Your task to perform on an android device: Clear all items from cart on newegg.com. Add "razer thresher" to the cart on newegg.com Image 0: 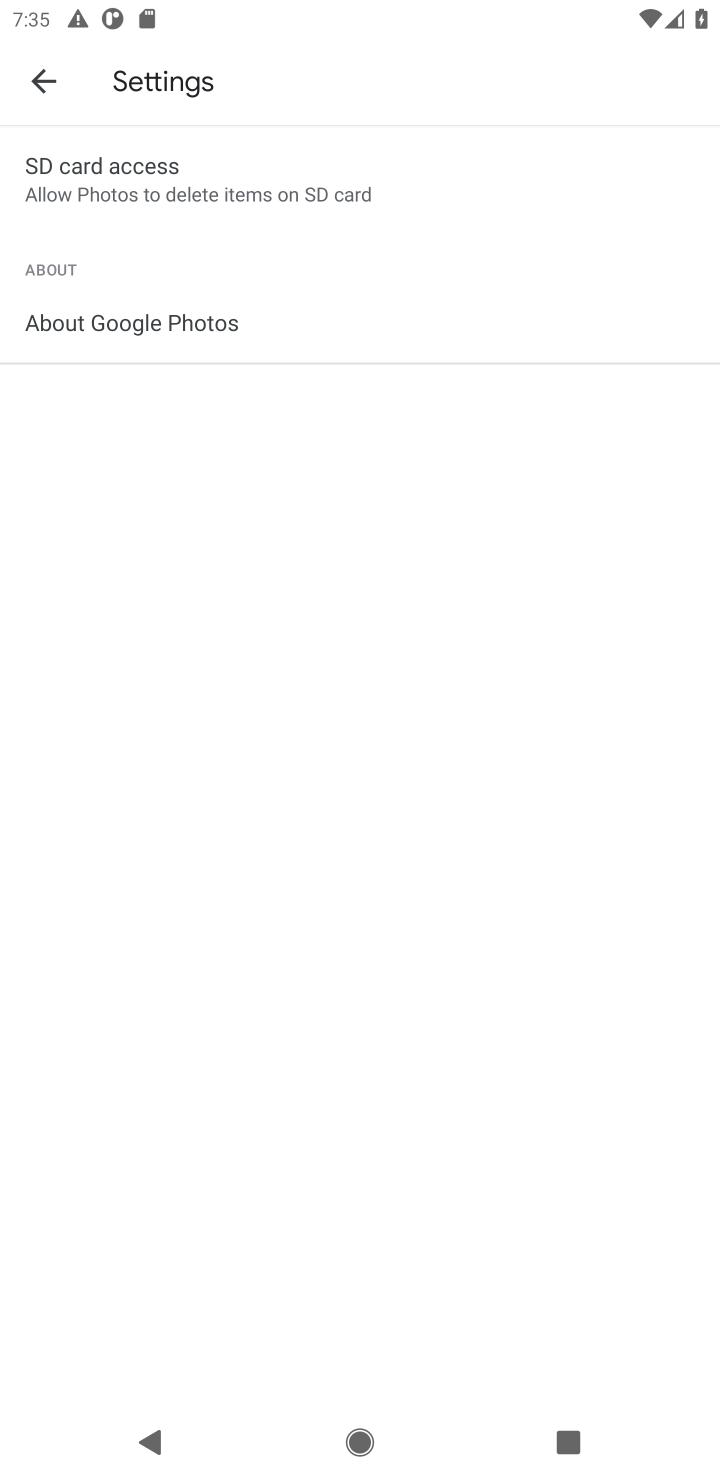
Step 0: press home button
Your task to perform on an android device: Clear all items from cart on newegg.com. Add "razer thresher" to the cart on newegg.com Image 1: 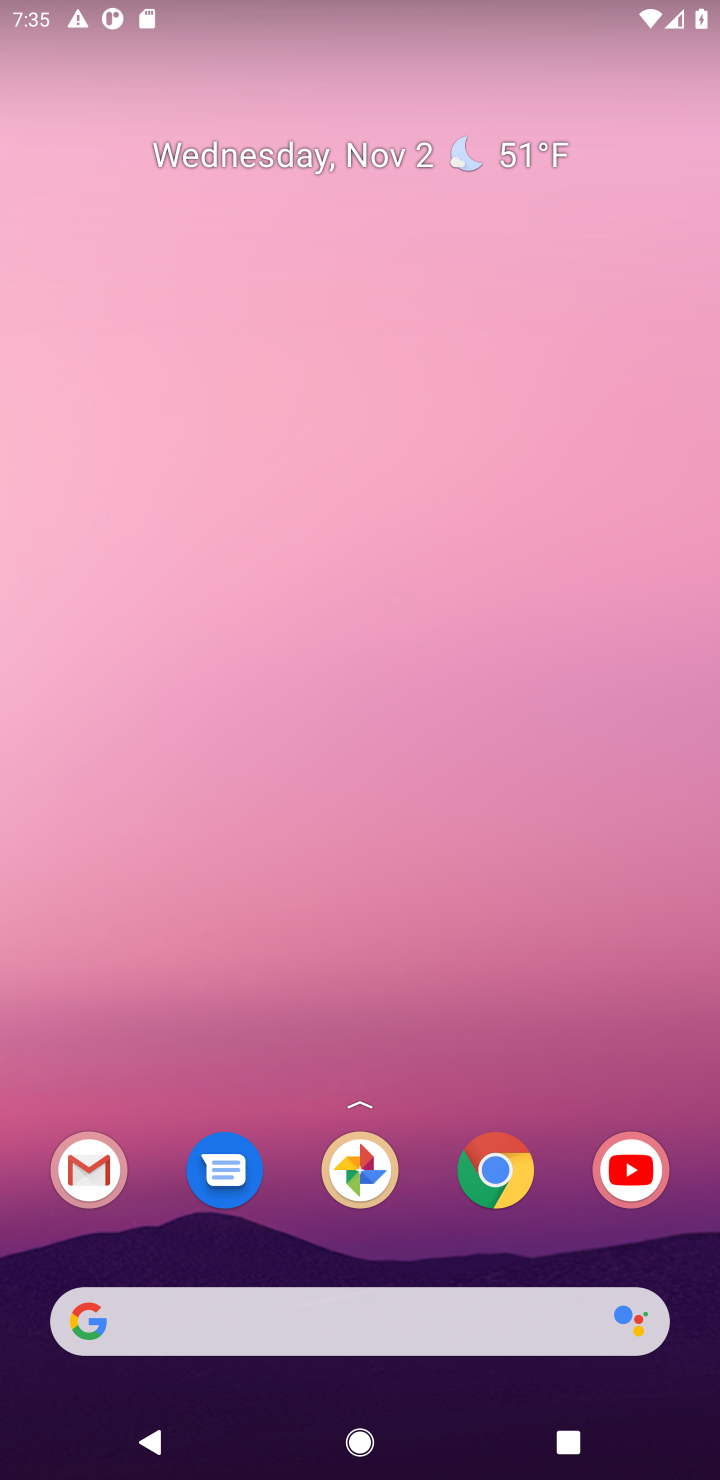
Step 1: click (500, 1208)
Your task to perform on an android device: Clear all items from cart on newegg.com. Add "razer thresher" to the cart on newegg.com Image 2: 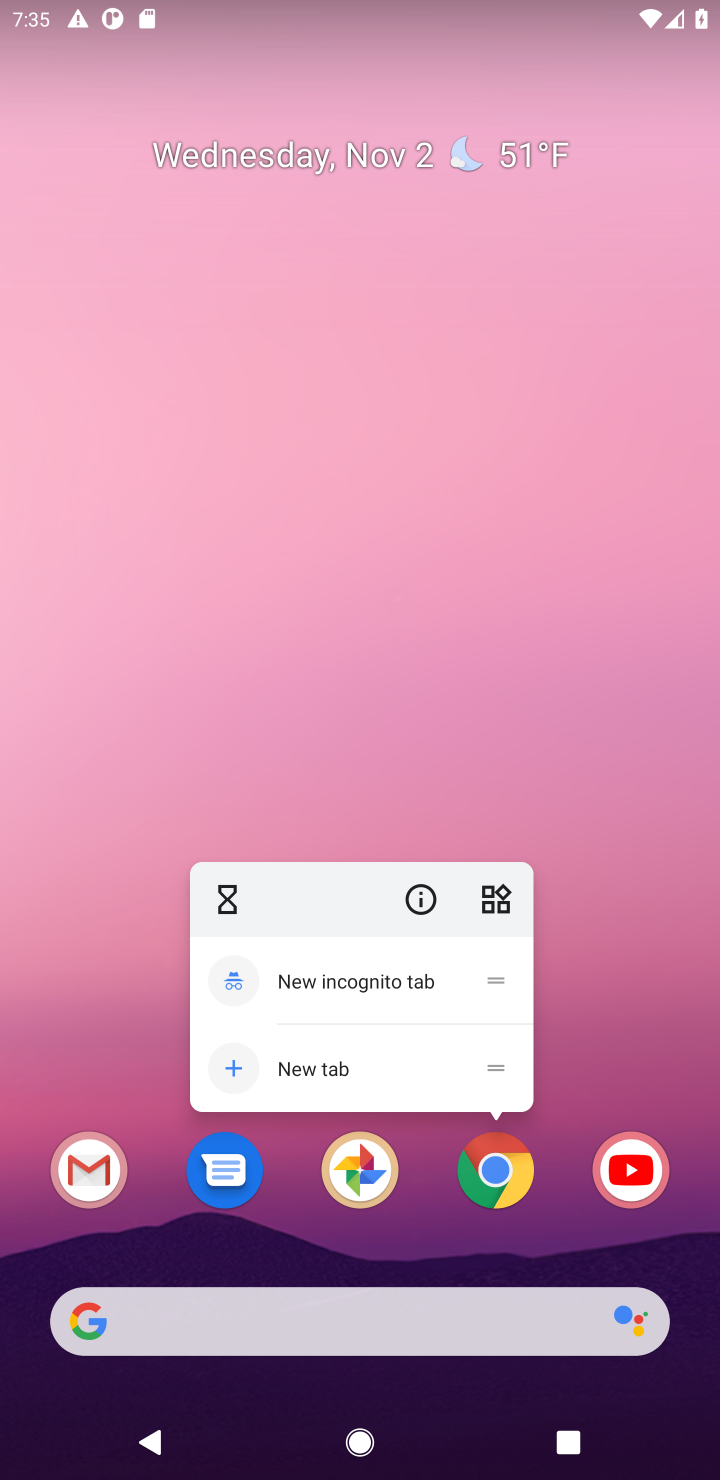
Step 2: click (503, 1181)
Your task to perform on an android device: Clear all items from cart on newegg.com. Add "razer thresher" to the cart on newegg.com Image 3: 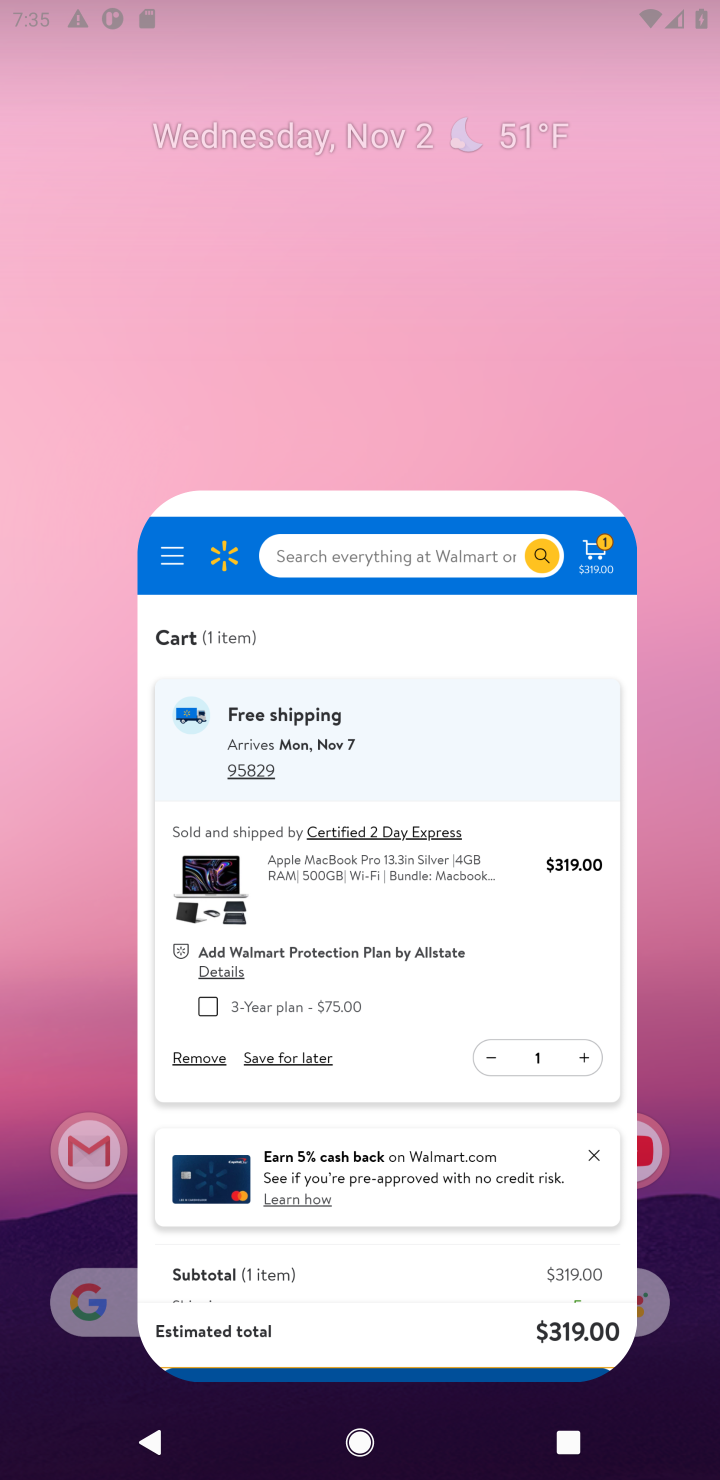
Step 3: click (493, 1175)
Your task to perform on an android device: Clear all items from cart on newegg.com. Add "razer thresher" to the cart on newegg.com Image 4: 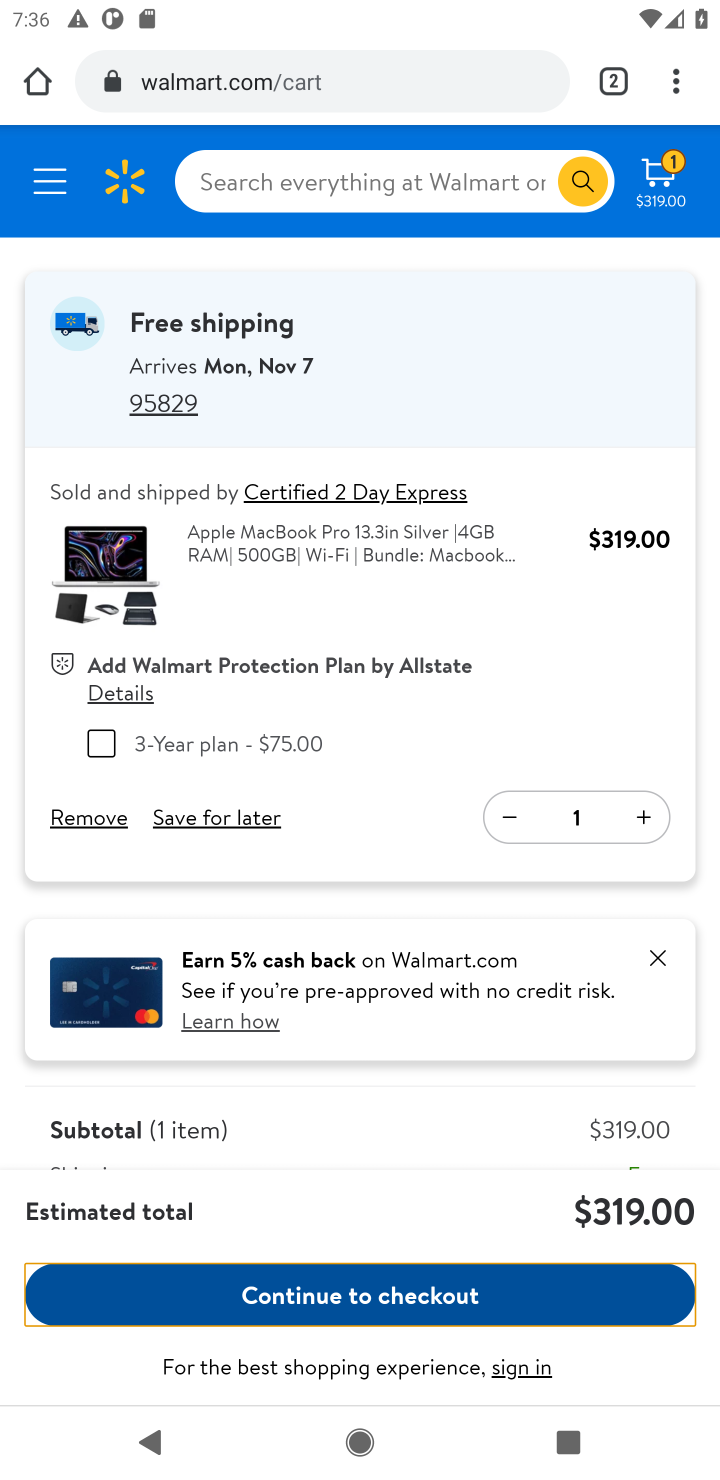
Step 4: click (415, 96)
Your task to perform on an android device: Clear all items from cart on newegg.com. Add "razer thresher" to the cart on newegg.com Image 5: 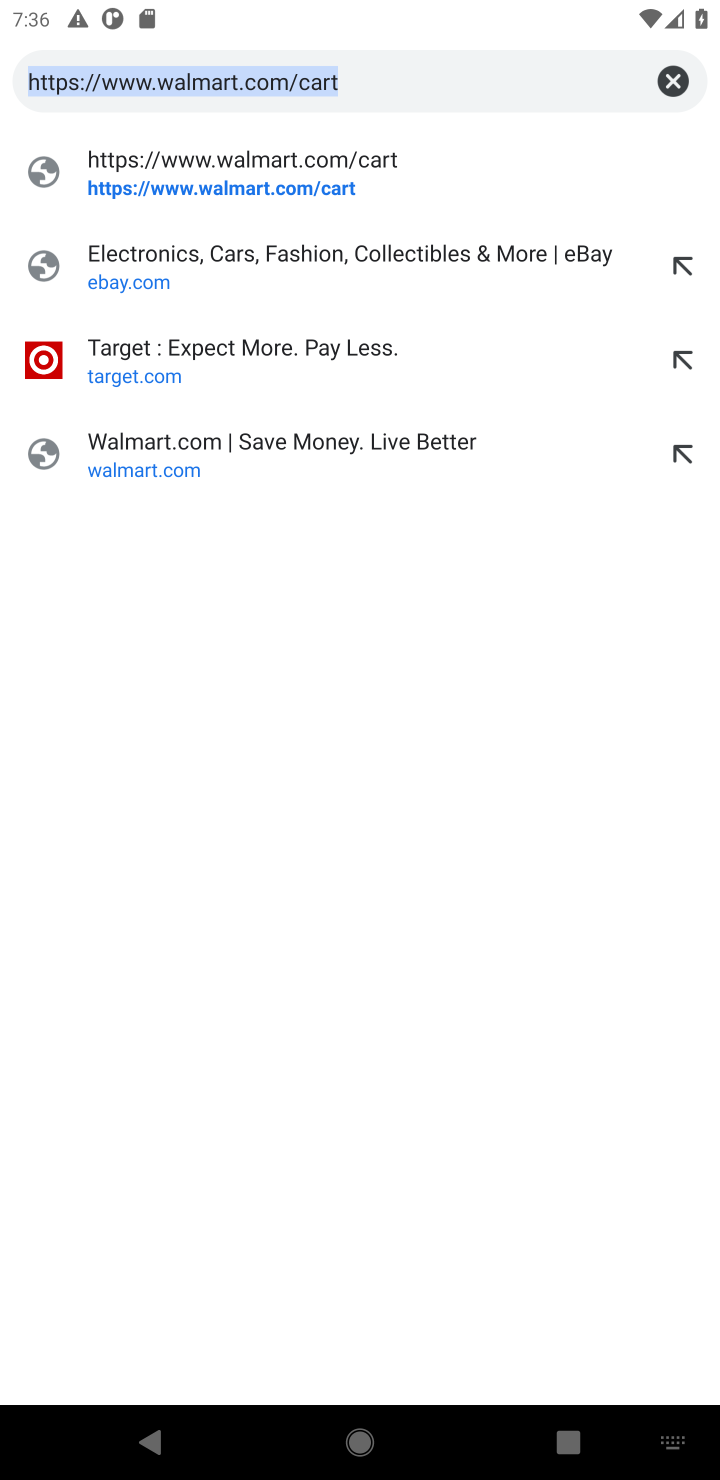
Step 5: type " newegg.com"
Your task to perform on an android device: Clear all items from cart on newegg.com. Add "razer thresher" to the cart on newegg.com Image 6: 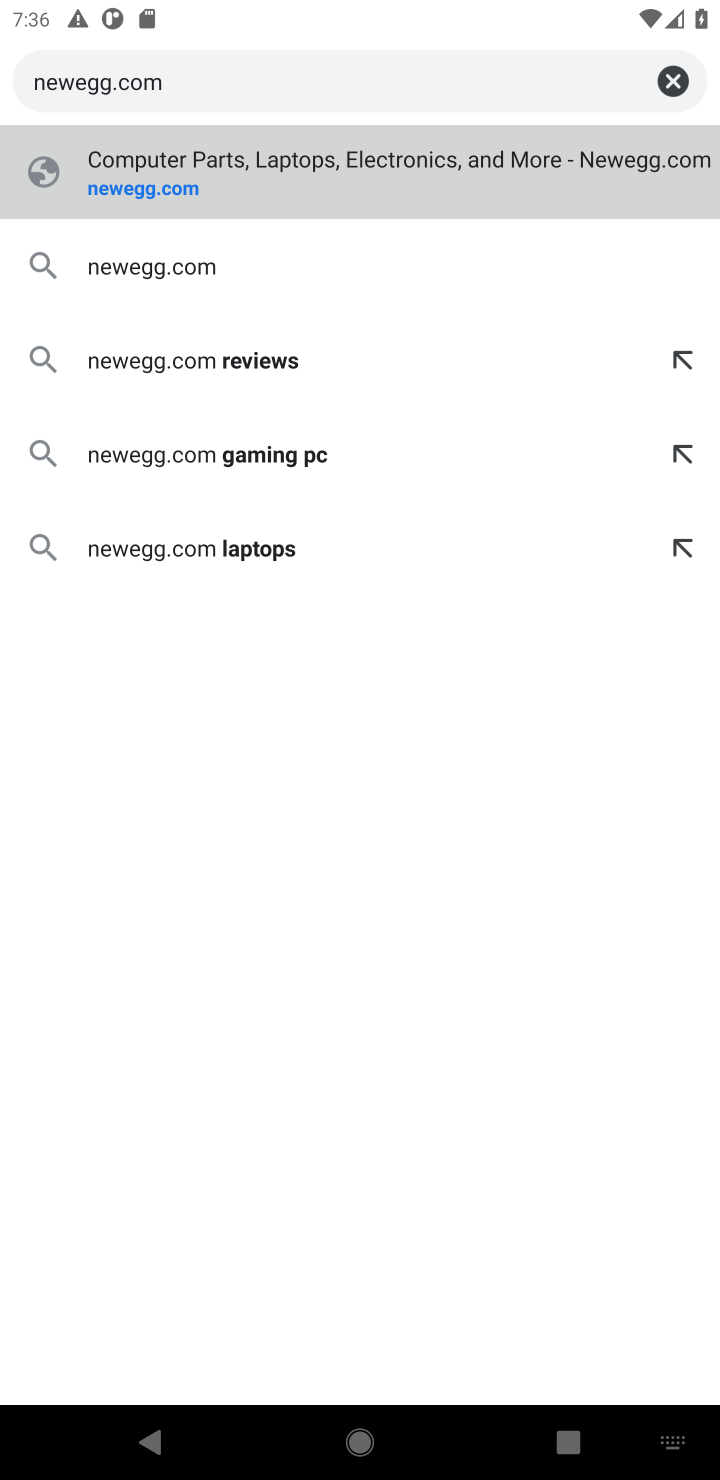
Step 6: type ""
Your task to perform on an android device: Clear all items from cart on newegg.com. Add "razer thresher" to the cart on newegg.com Image 7: 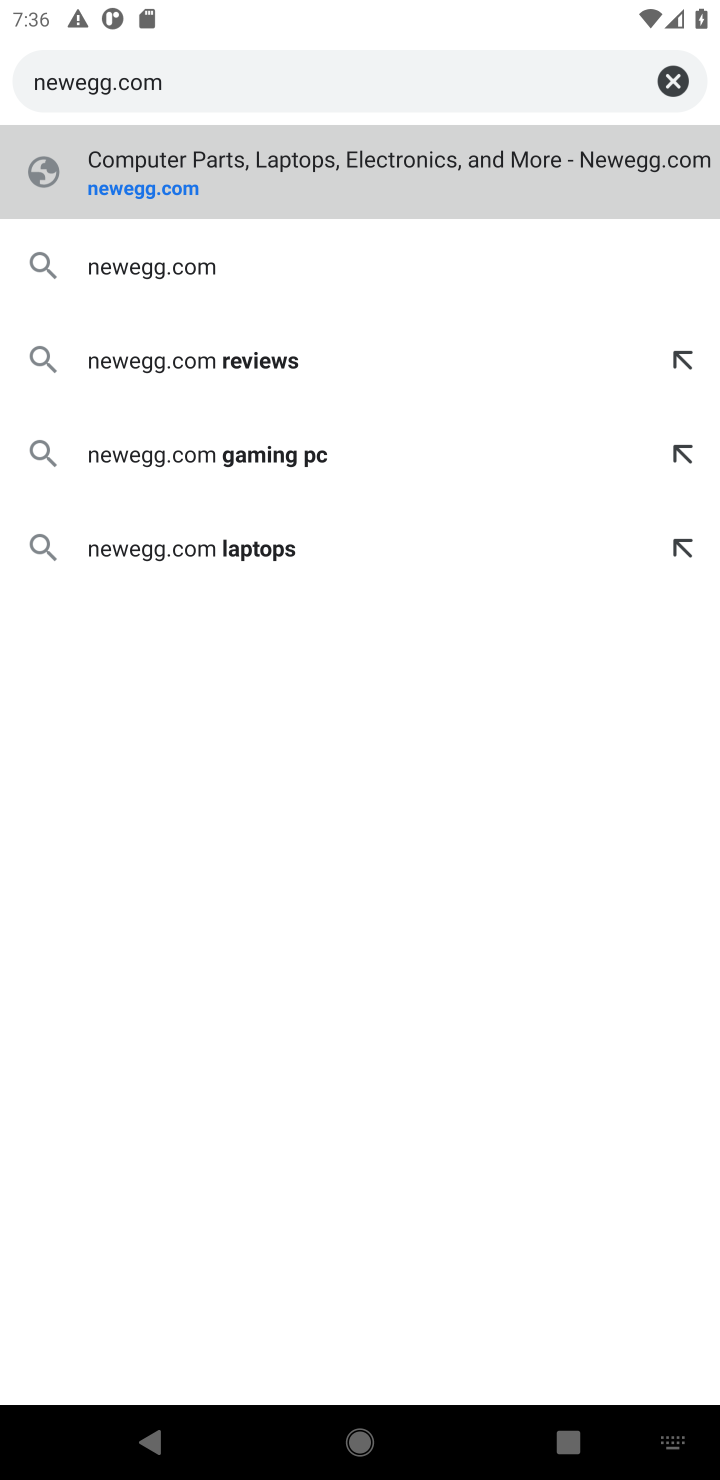
Step 7: press enter
Your task to perform on an android device: Clear all items from cart on newegg.com. Add "razer thresher" to the cart on newegg.com Image 8: 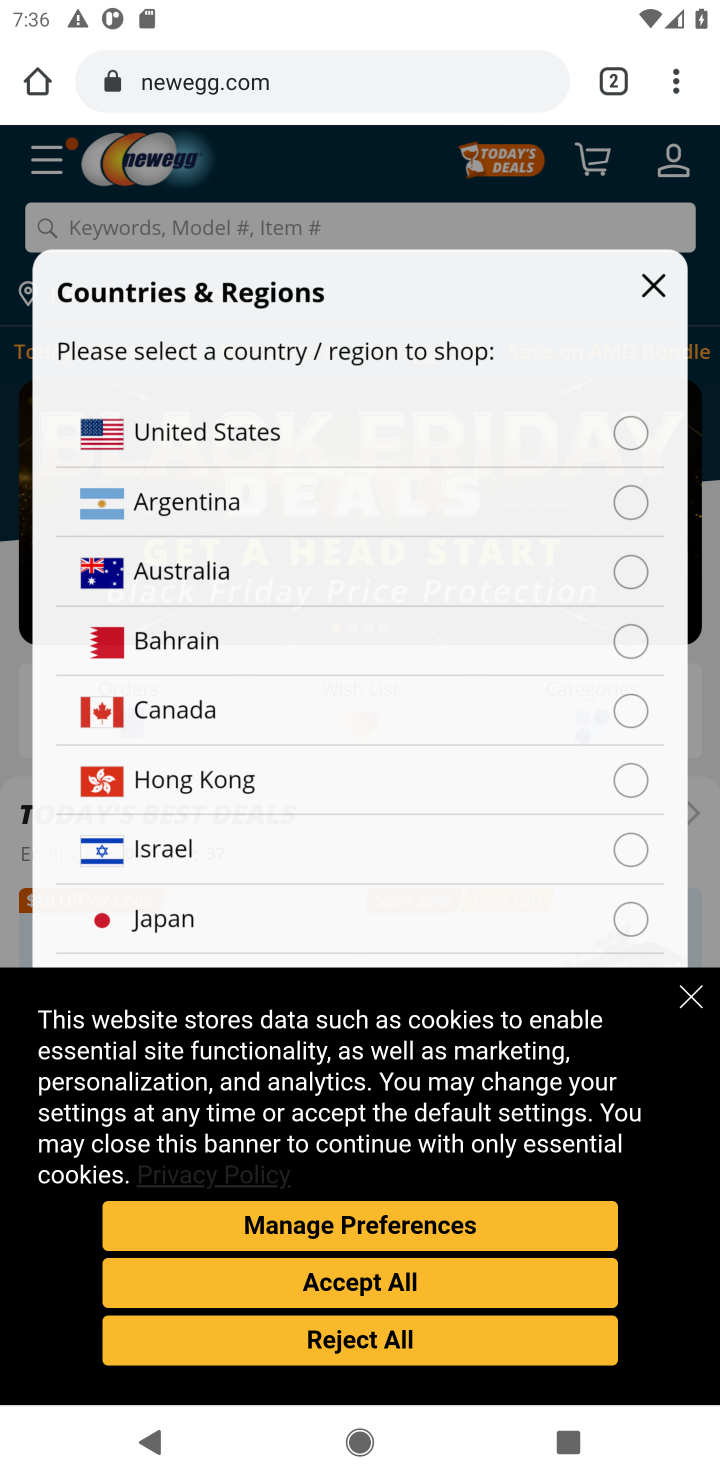
Step 8: click (593, 161)
Your task to perform on an android device: Clear all items from cart on newegg.com. Add "razer thresher" to the cart on newegg.com Image 9: 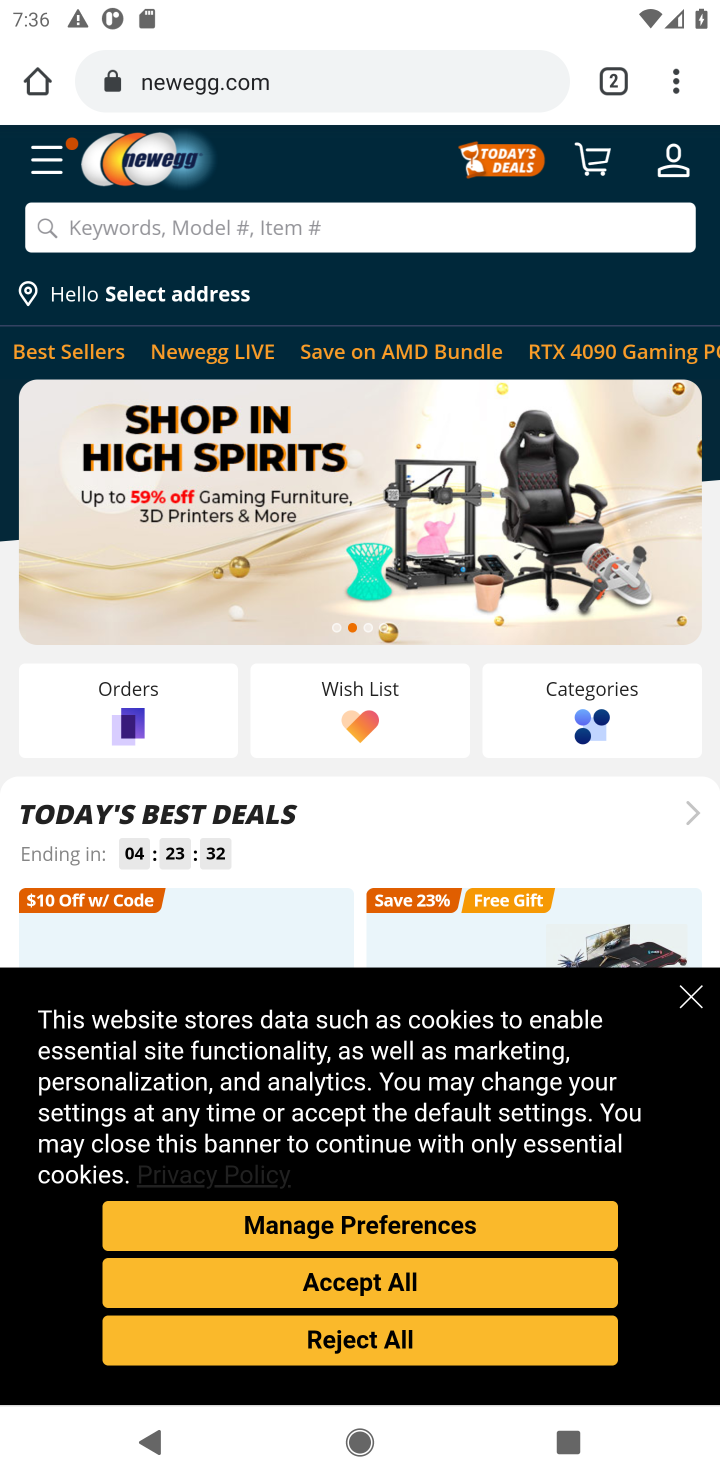
Step 9: click (398, 1283)
Your task to perform on an android device: Clear all items from cart on newegg.com. Add "razer thresher" to the cart on newegg.com Image 10: 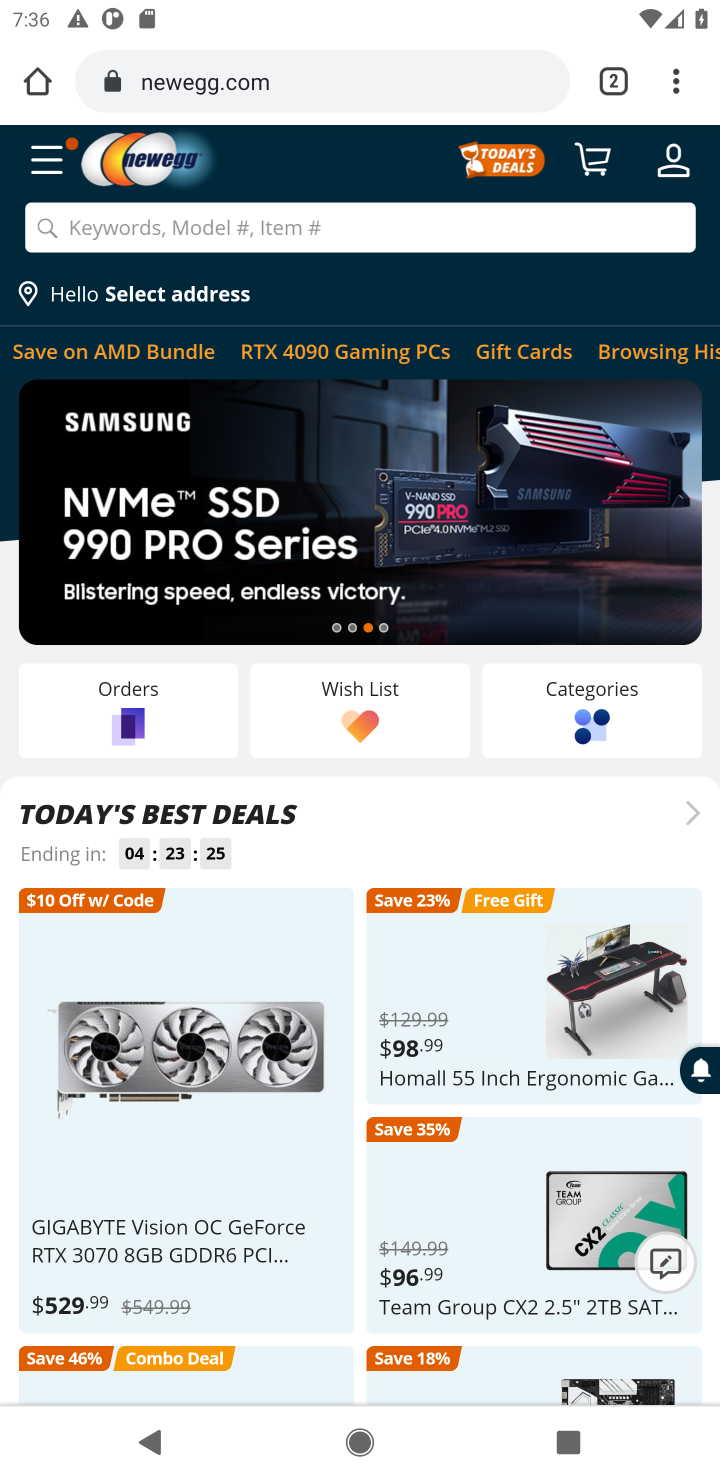
Step 10: click (603, 150)
Your task to perform on an android device: Clear all items from cart on newegg.com. Add "razer thresher" to the cart on newegg.com Image 11: 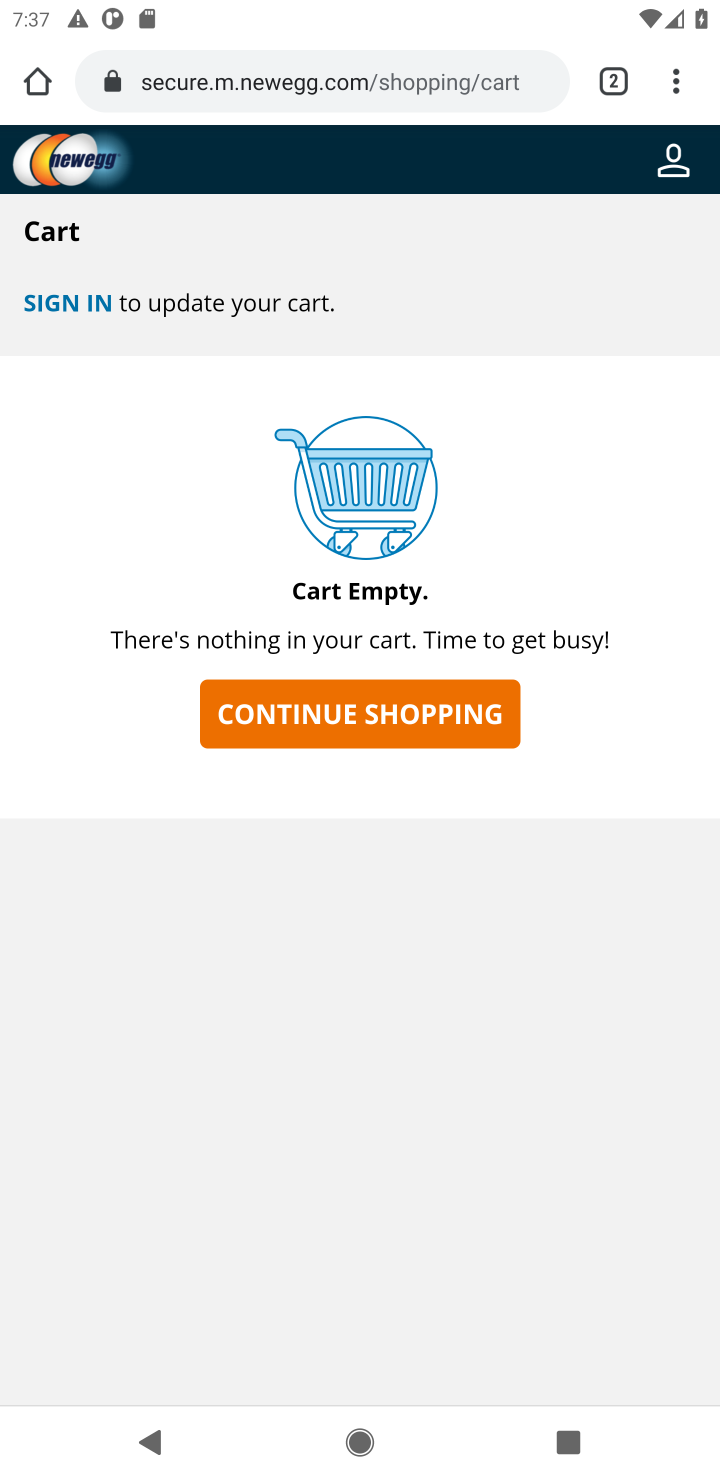
Step 11: click (381, 703)
Your task to perform on an android device: Clear all items from cart on newegg.com. Add "razer thresher" to the cart on newegg.com Image 12: 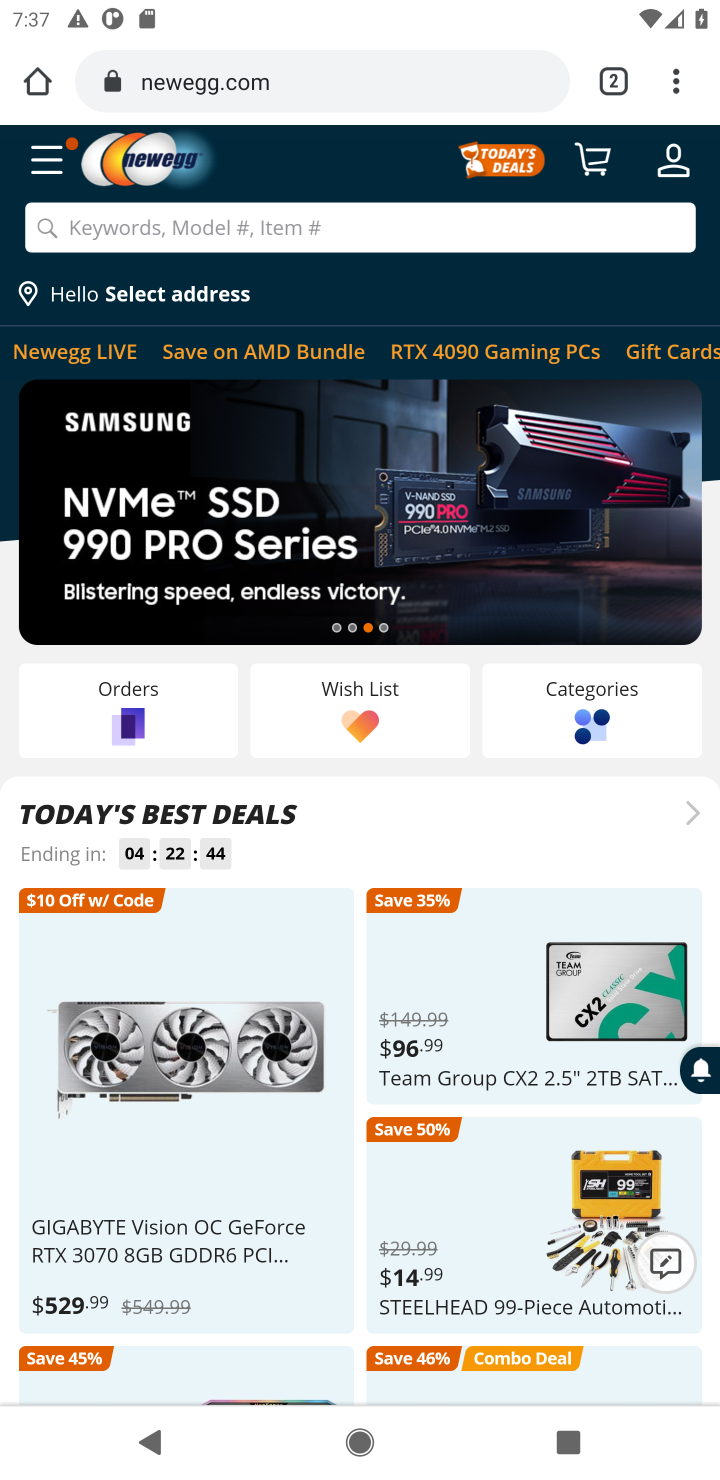
Step 12: click (250, 224)
Your task to perform on an android device: Clear all items from cart on newegg.com. Add "razer thresher" to the cart on newegg.com Image 13: 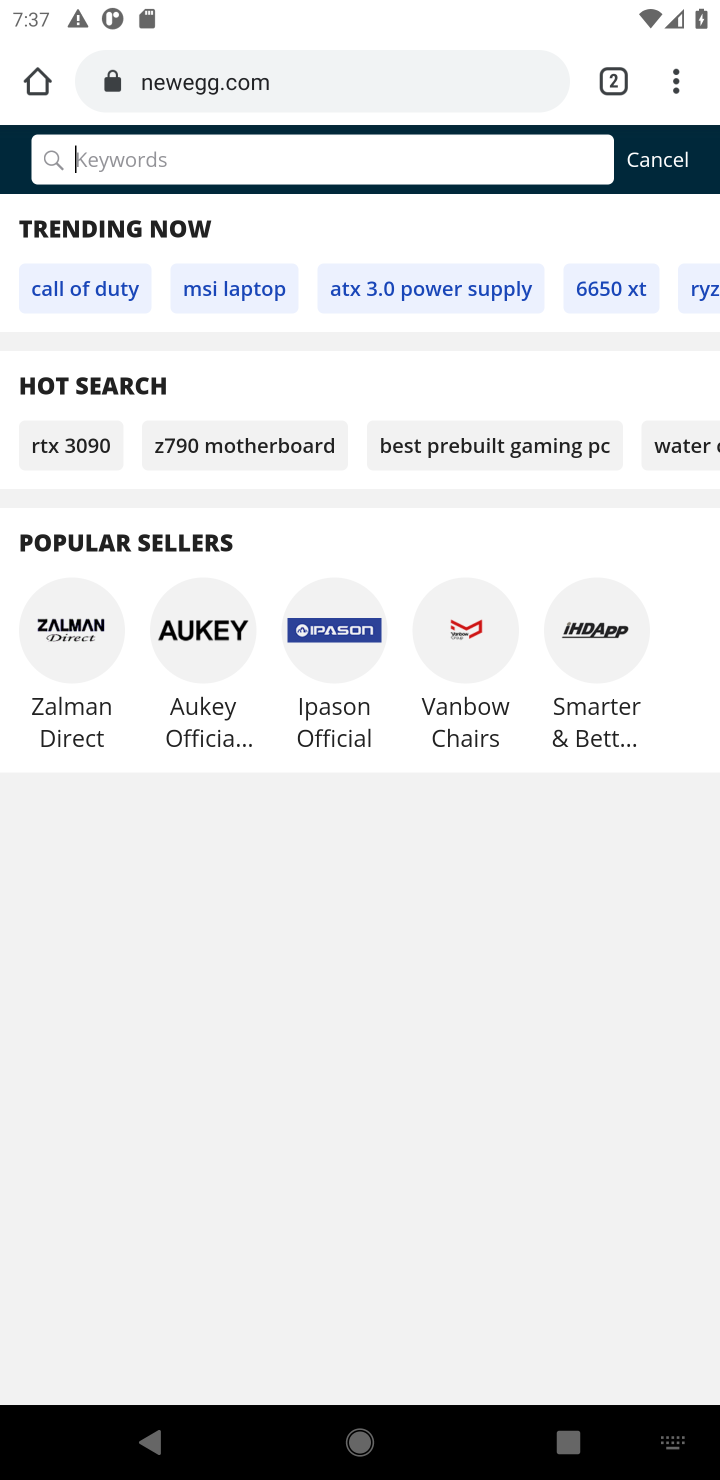
Step 13: type "razer thresher"
Your task to perform on an android device: Clear all items from cart on newegg.com. Add "razer thresher" to the cart on newegg.com Image 14: 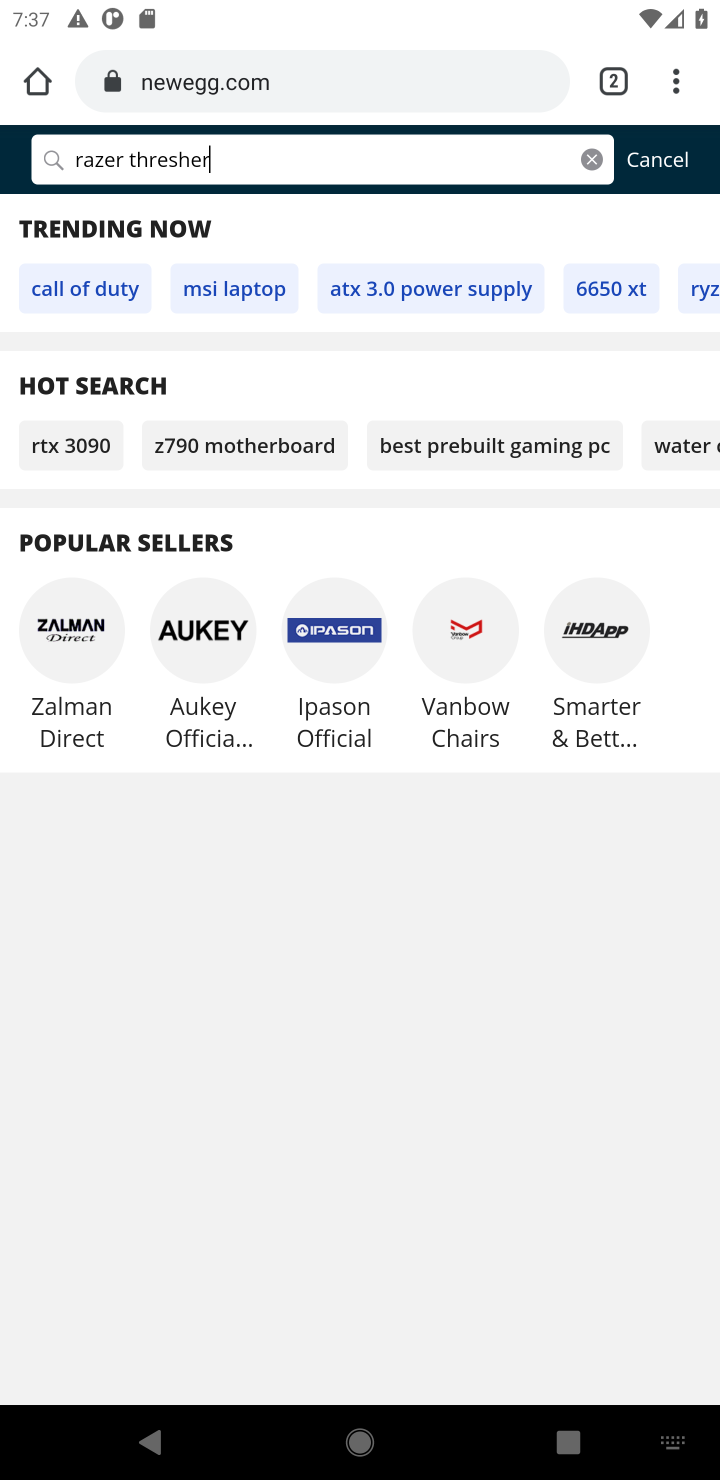
Step 14: type ""
Your task to perform on an android device: Clear all items from cart on newegg.com. Add "razer thresher" to the cart on newegg.com Image 15: 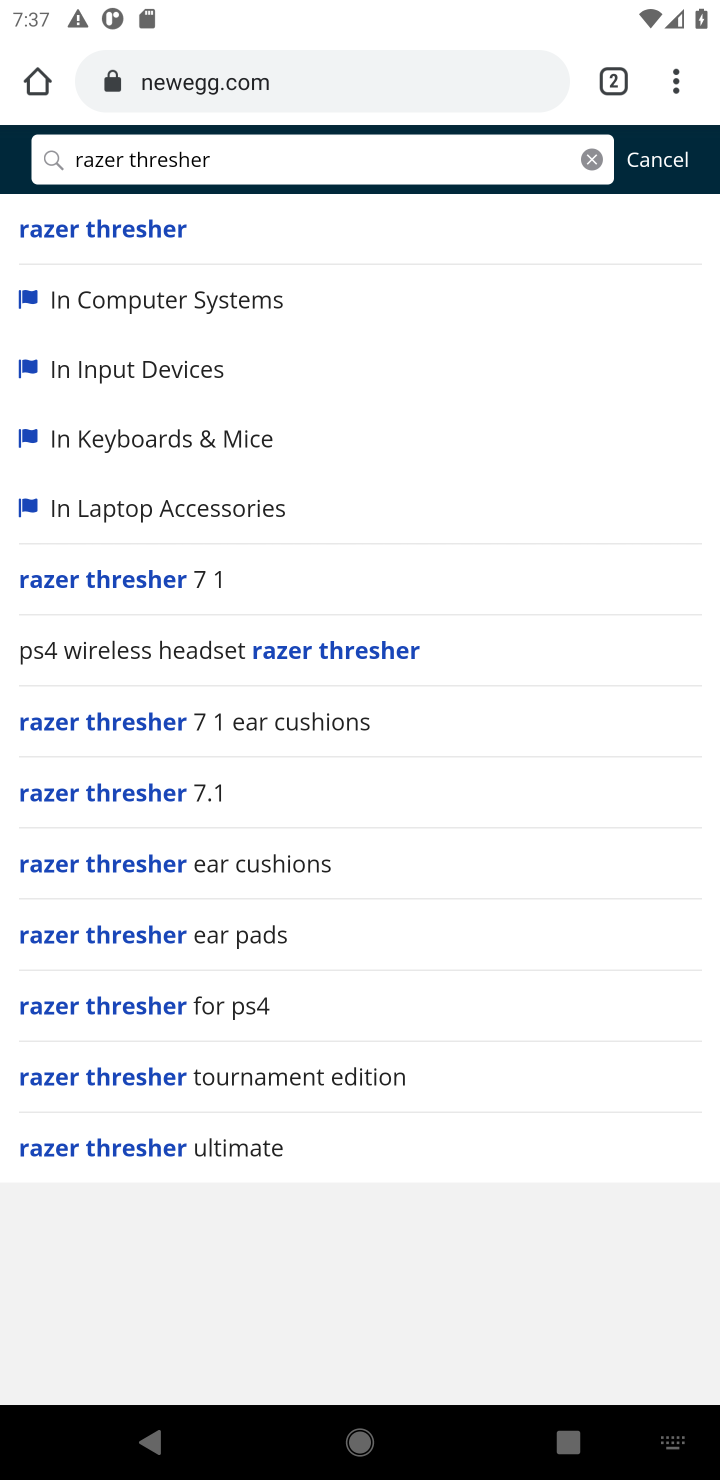
Step 15: press enter
Your task to perform on an android device: Clear all items from cart on newegg.com. Add "razer thresher" to the cart on newegg.com Image 16: 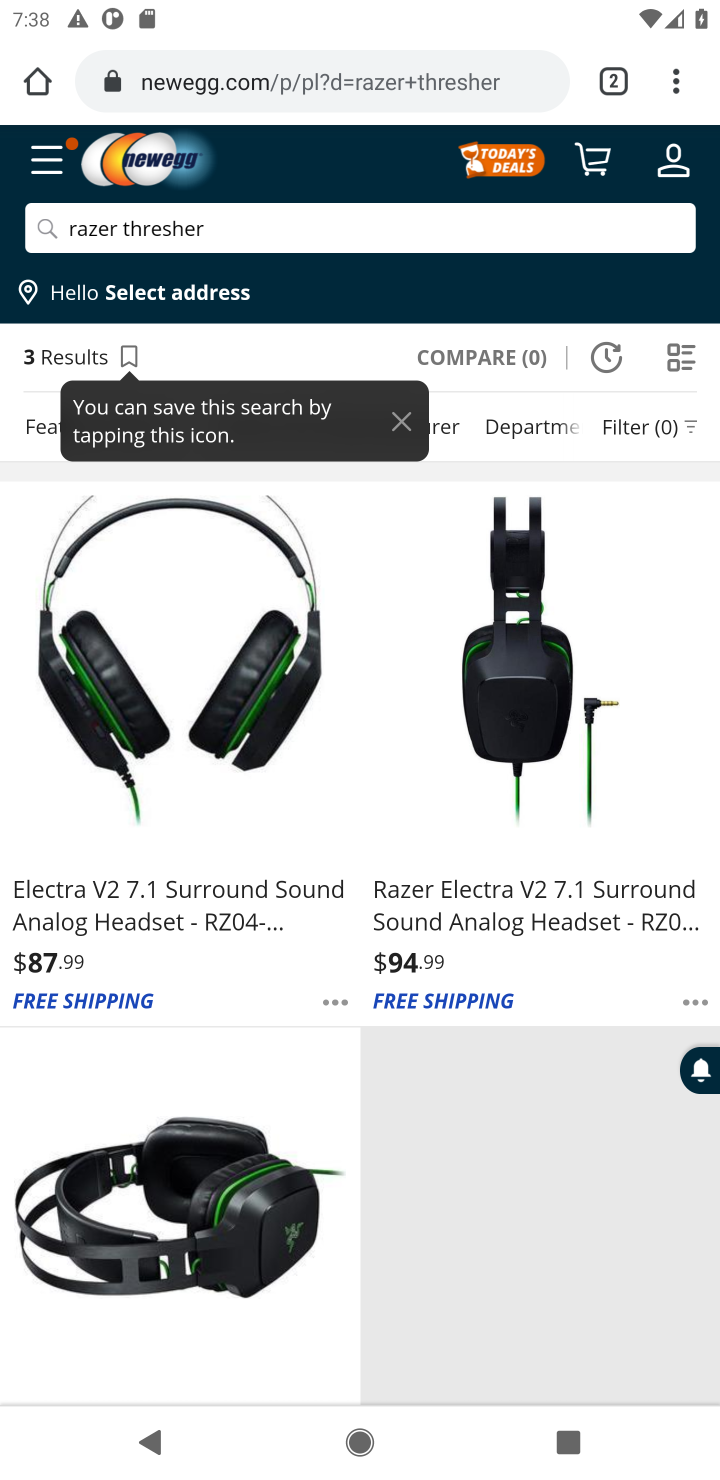
Step 16: task complete